Your task to perform on an android device: Search for a custom made wallet Image 0: 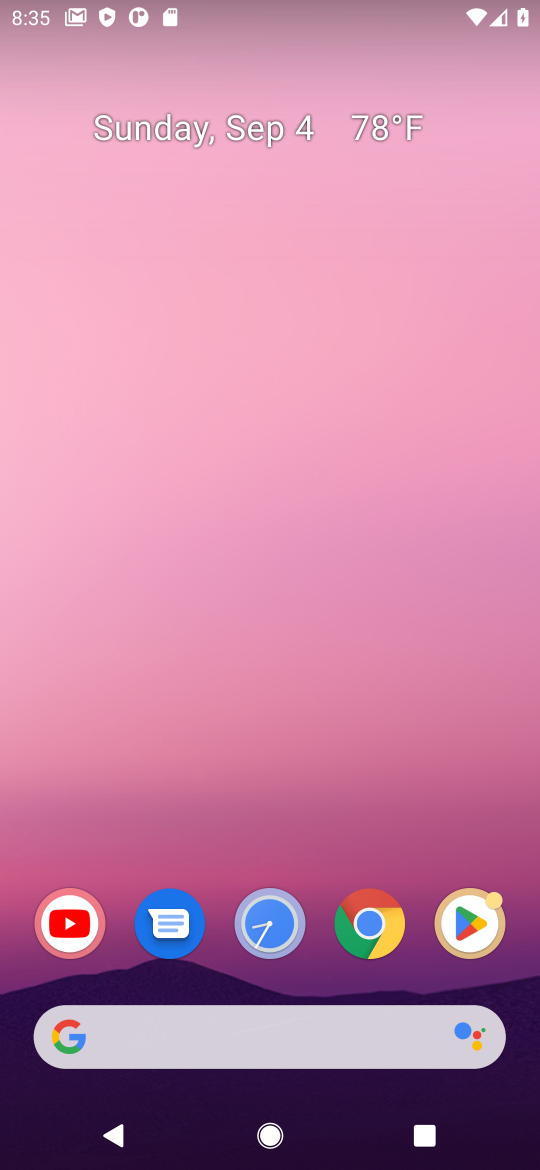
Step 0: click (389, 927)
Your task to perform on an android device: Search for a custom made wallet Image 1: 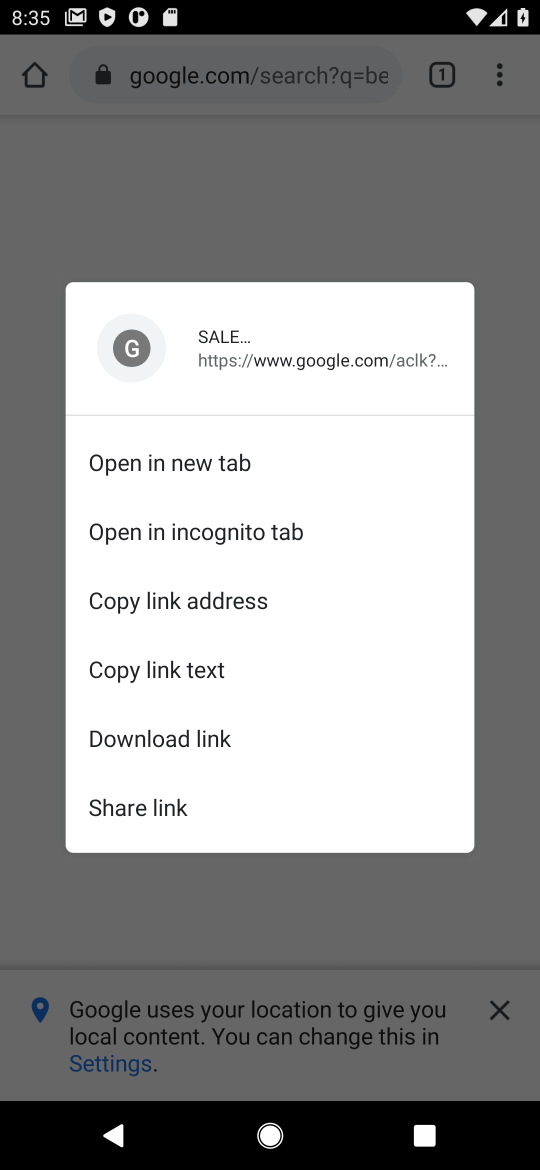
Step 1: click (528, 1021)
Your task to perform on an android device: Search for a custom made wallet Image 2: 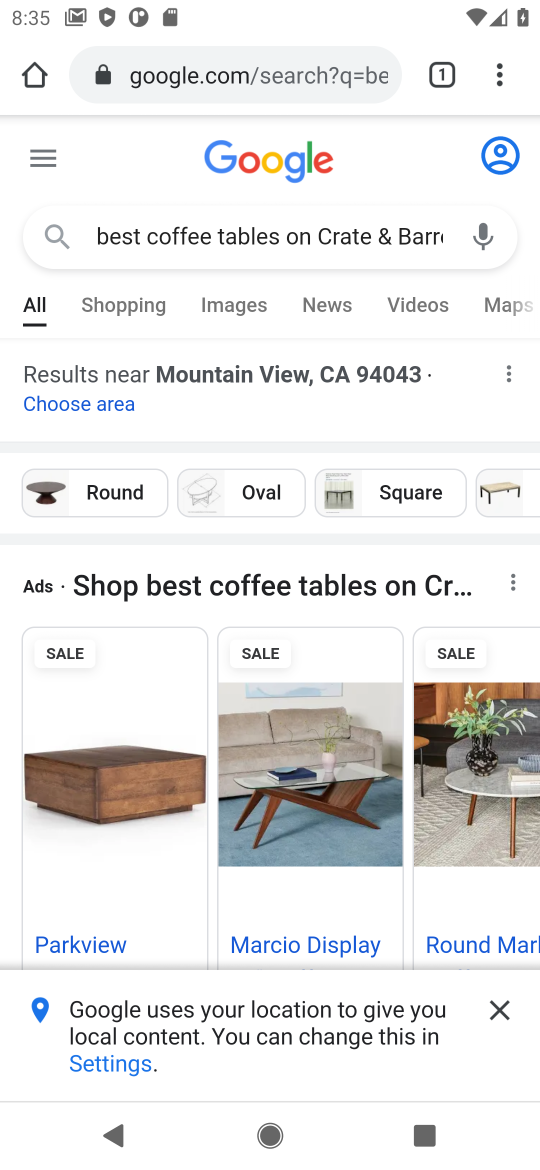
Step 2: click (329, 83)
Your task to perform on an android device: Search for a custom made wallet Image 3: 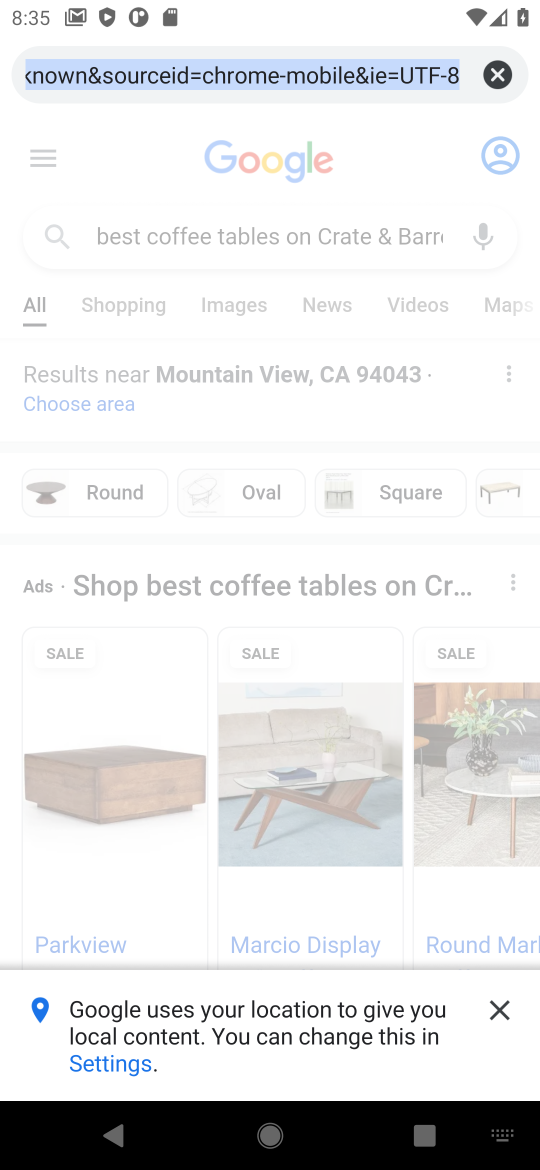
Step 3: click (503, 80)
Your task to perform on an android device: Search for a custom made wallet Image 4: 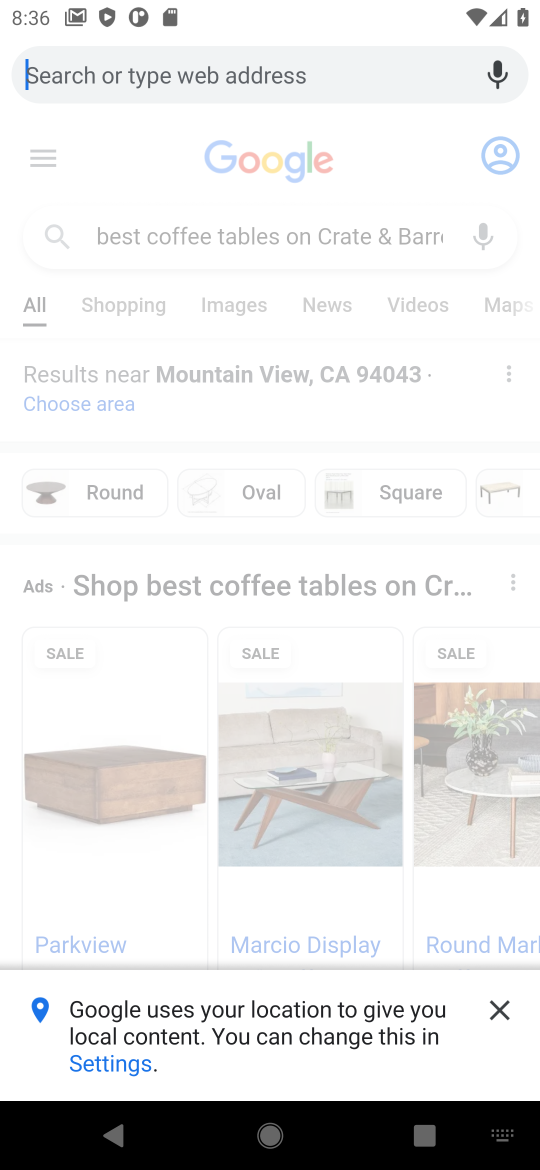
Step 4: type "custom made wallet"
Your task to perform on an android device: Search for a custom made wallet Image 5: 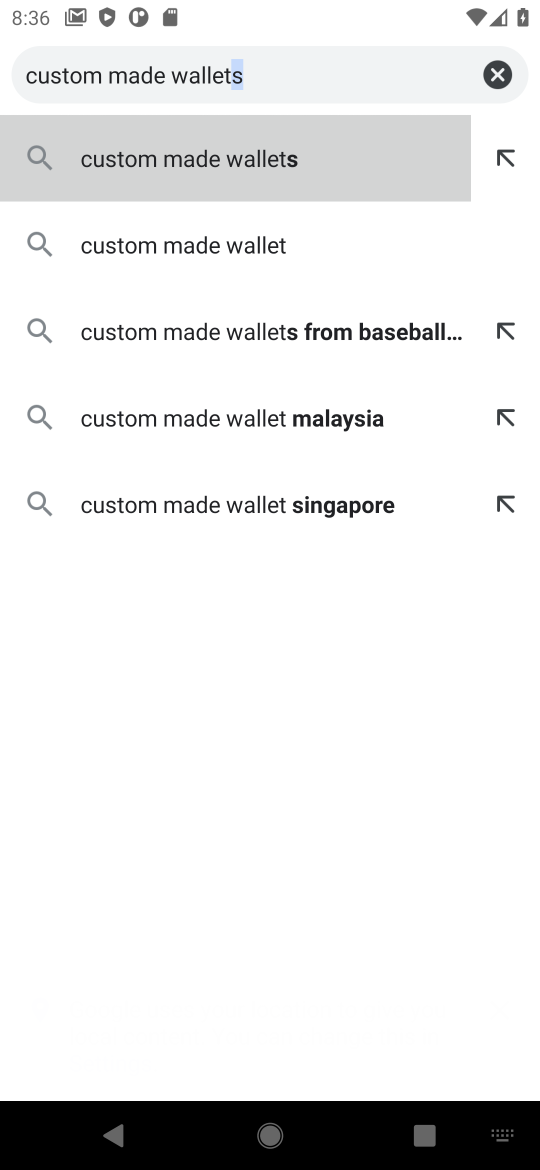
Step 5: click (152, 245)
Your task to perform on an android device: Search for a custom made wallet Image 6: 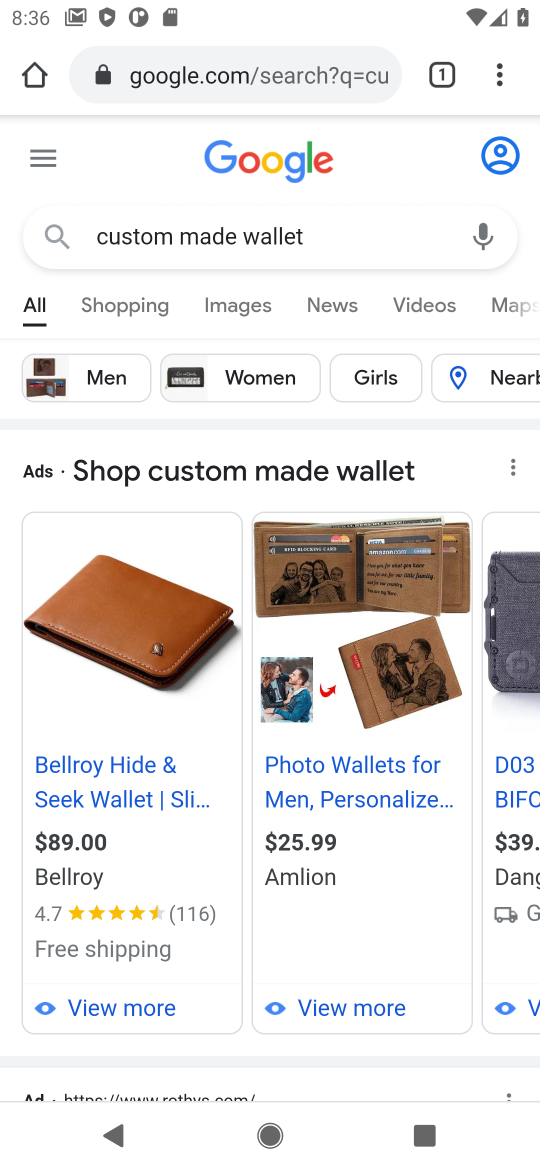
Step 6: task complete